Your task to perform on an android device: toggle location history Image 0: 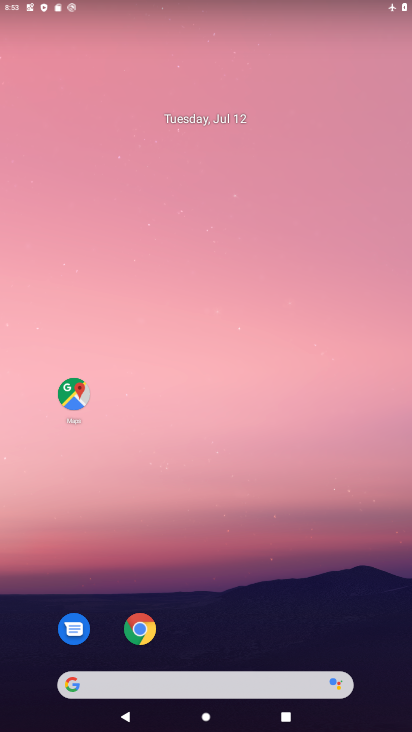
Step 0: drag from (289, 637) to (301, 225)
Your task to perform on an android device: toggle location history Image 1: 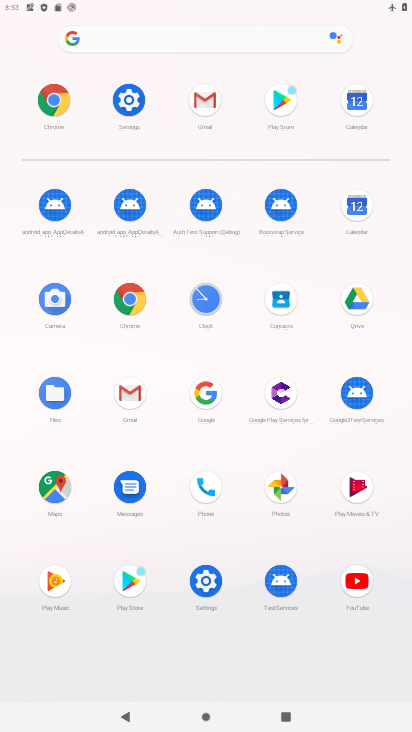
Step 1: click (132, 100)
Your task to perform on an android device: toggle location history Image 2: 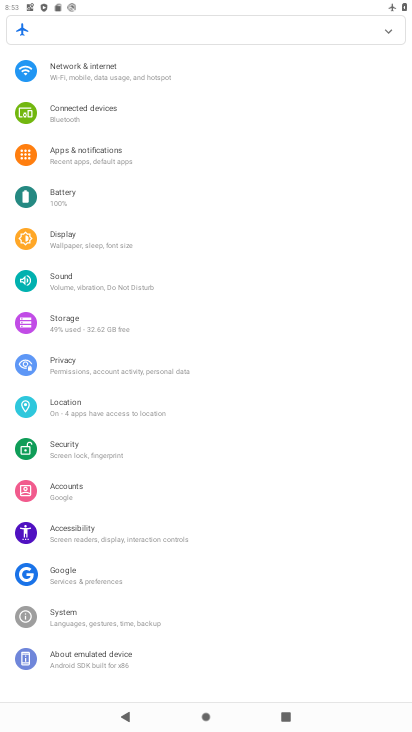
Step 2: click (124, 396)
Your task to perform on an android device: toggle location history Image 3: 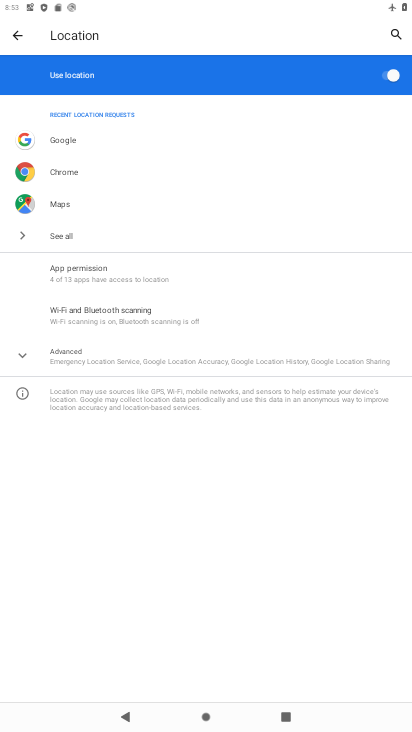
Step 3: click (157, 346)
Your task to perform on an android device: toggle location history Image 4: 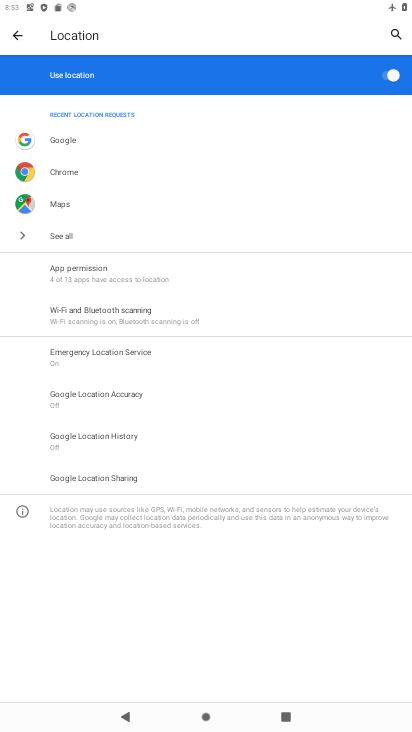
Step 4: click (127, 440)
Your task to perform on an android device: toggle location history Image 5: 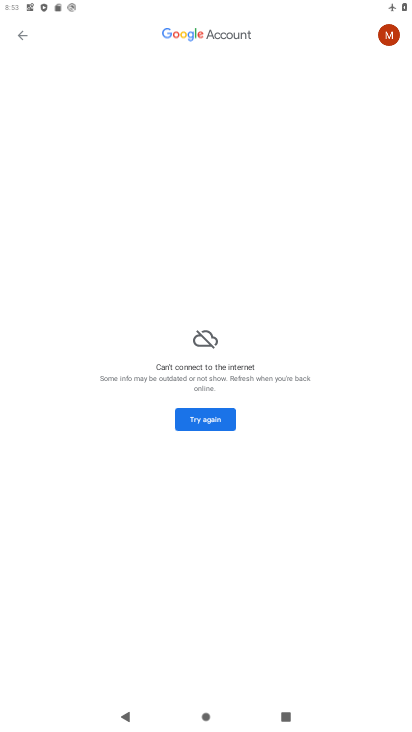
Step 5: click (227, 424)
Your task to perform on an android device: toggle location history Image 6: 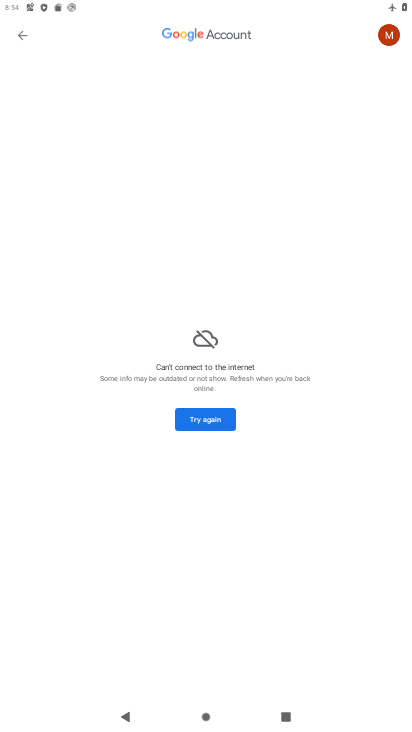
Step 6: task complete